Your task to perform on an android device: Go to eBay Image 0: 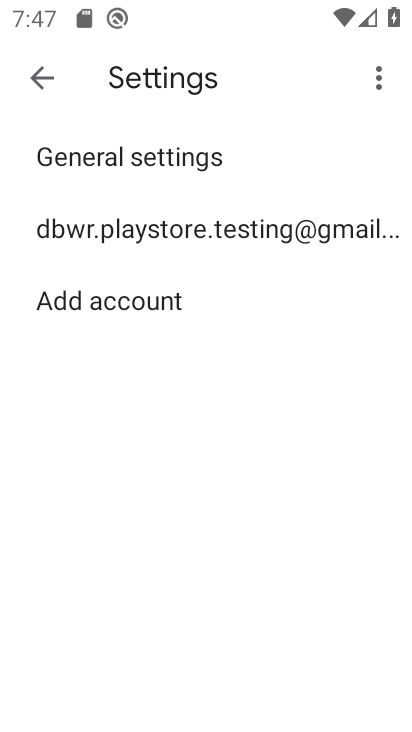
Step 0: press home button
Your task to perform on an android device: Go to eBay Image 1: 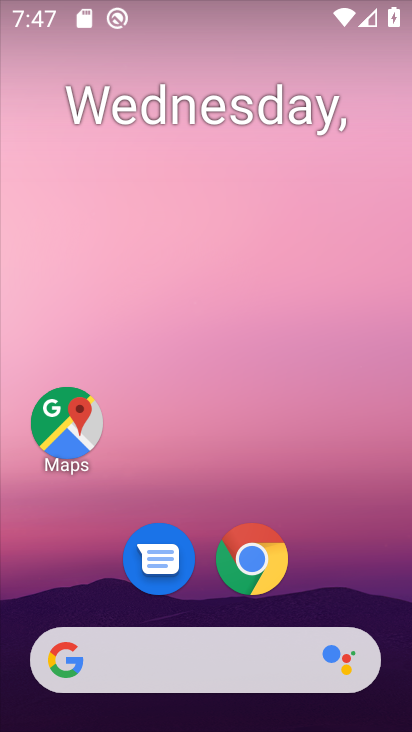
Step 1: click (275, 570)
Your task to perform on an android device: Go to eBay Image 2: 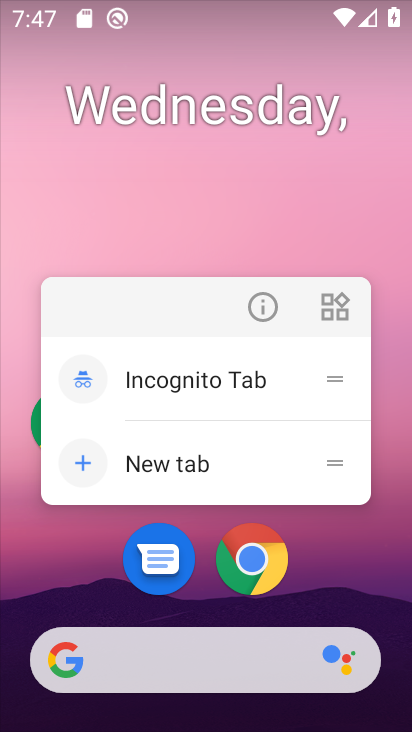
Step 2: drag from (366, 586) to (387, 205)
Your task to perform on an android device: Go to eBay Image 3: 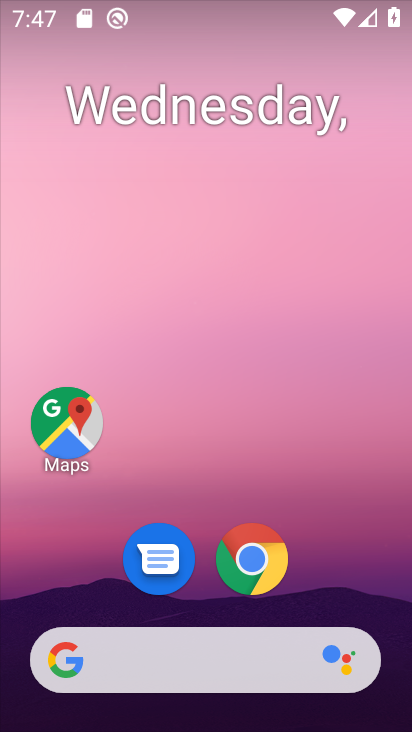
Step 3: drag from (331, 557) to (330, 172)
Your task to perform on an android device: Go to eBay Image 4: 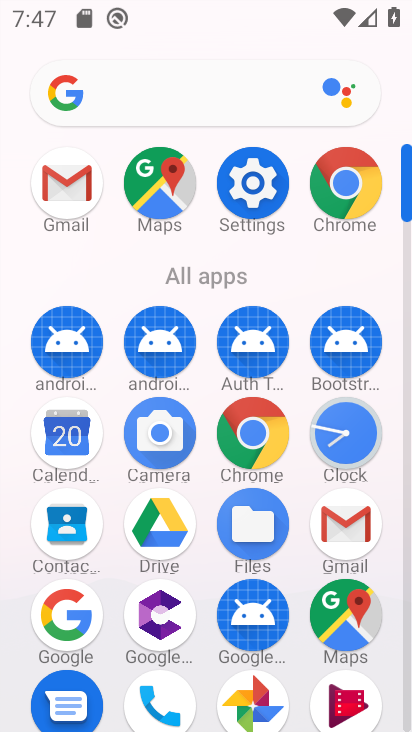
Step 4: click (254, 435)
Your task to perform on an android device: Go to eBay Image 5: 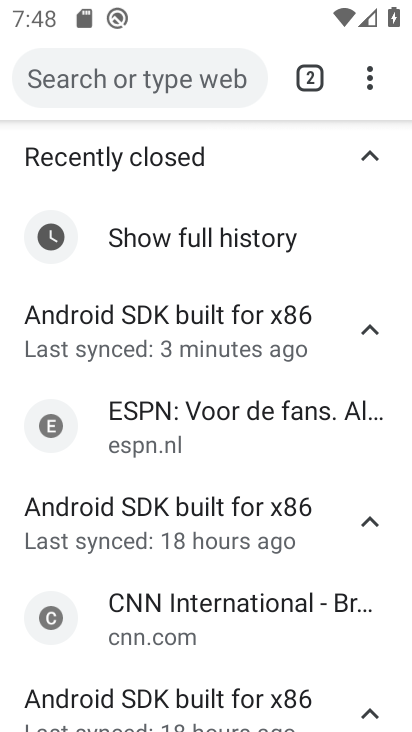
Step 5: click (311, 87)
Your task to perform on an android device: Go to eBay Image 6: 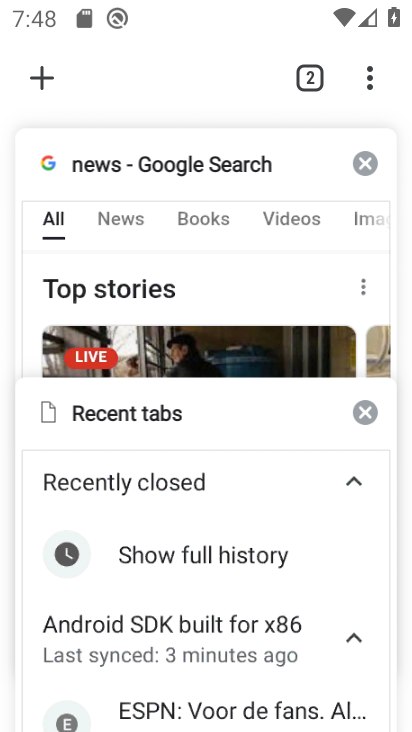
Step 6: click (46, 77)
Your task to perform on an android device: Go to eBay Image 7: 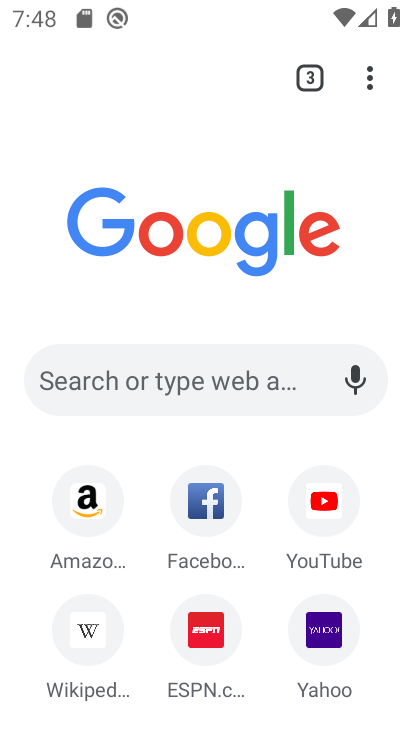
Step 7: click (85, 368)
Your task to perform on an android device: Go to eBay Image 8: 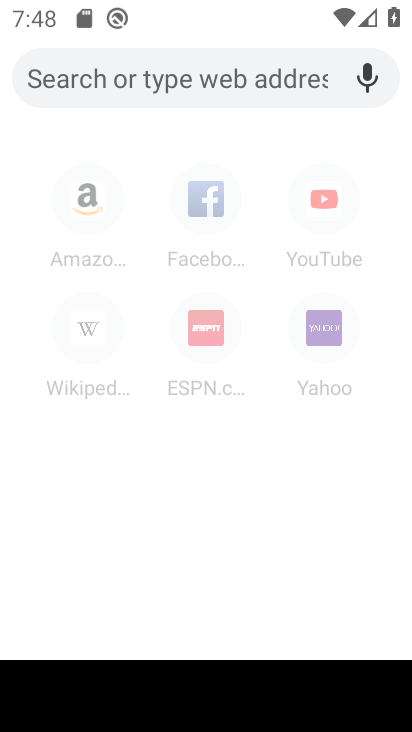
Step 8: type "ebay"
Your task to perform on an android device: Go to eBay Image 9: 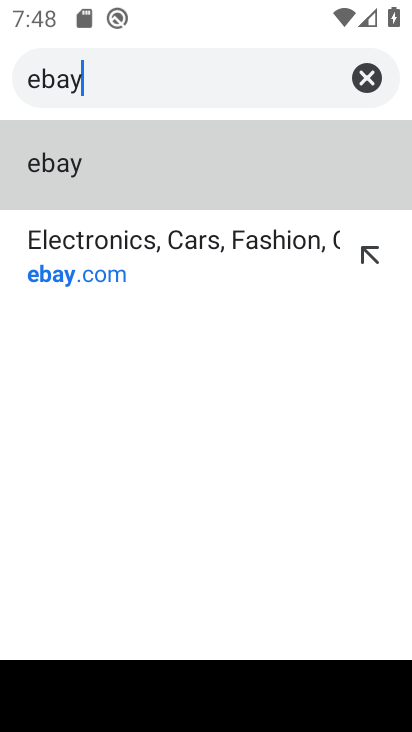
Step 9: click (146, 224)
Your task to perform on an android device: Go to eBay Image 10: 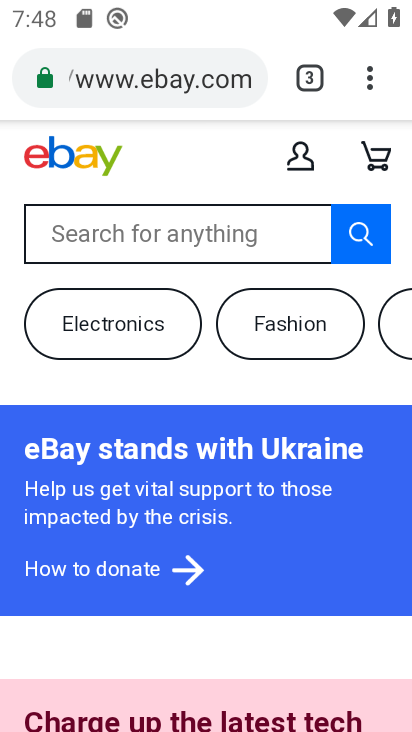
Step 10: task complete